Your task to perform on an android device: find snoozed emails in the gmail app Image 0: 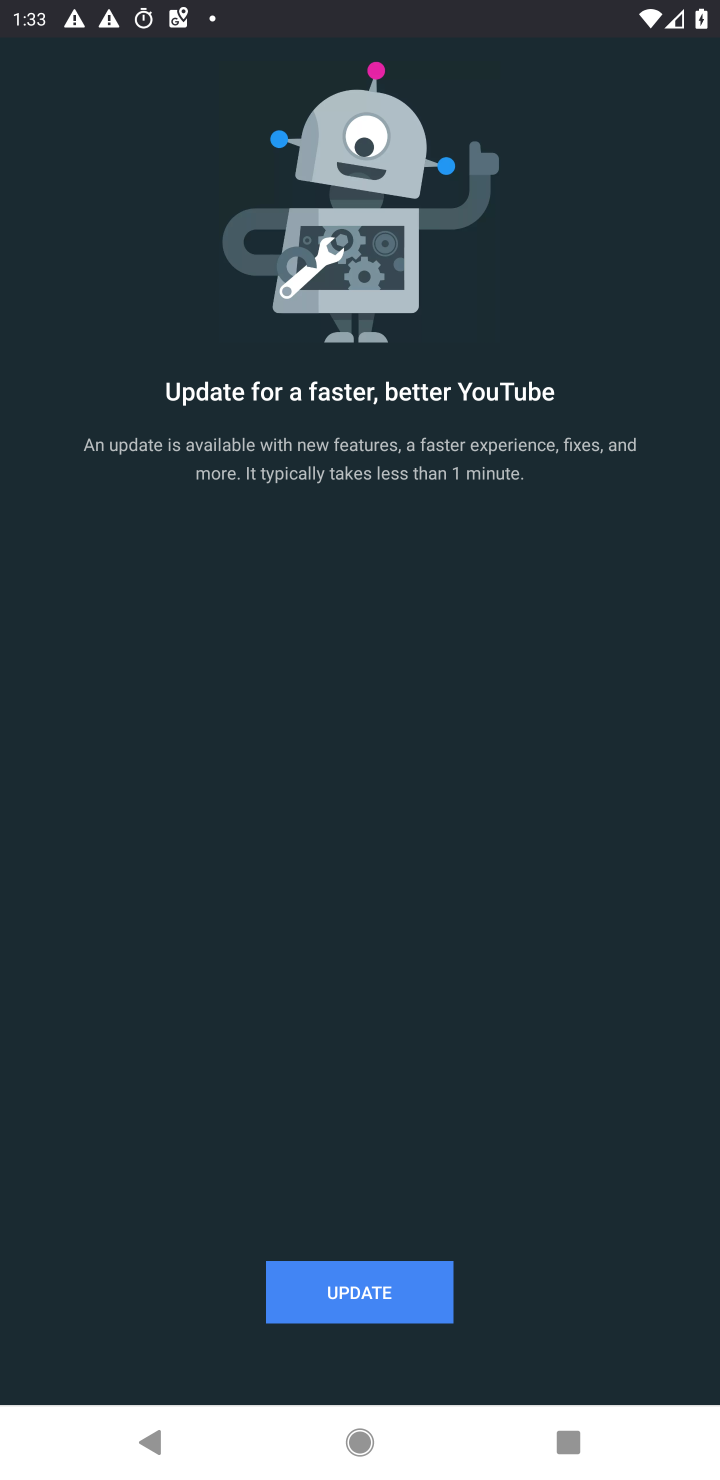
Step 0: press home button
Your task to perform on an android device: find snoozed emails in the gmail app Image 1: 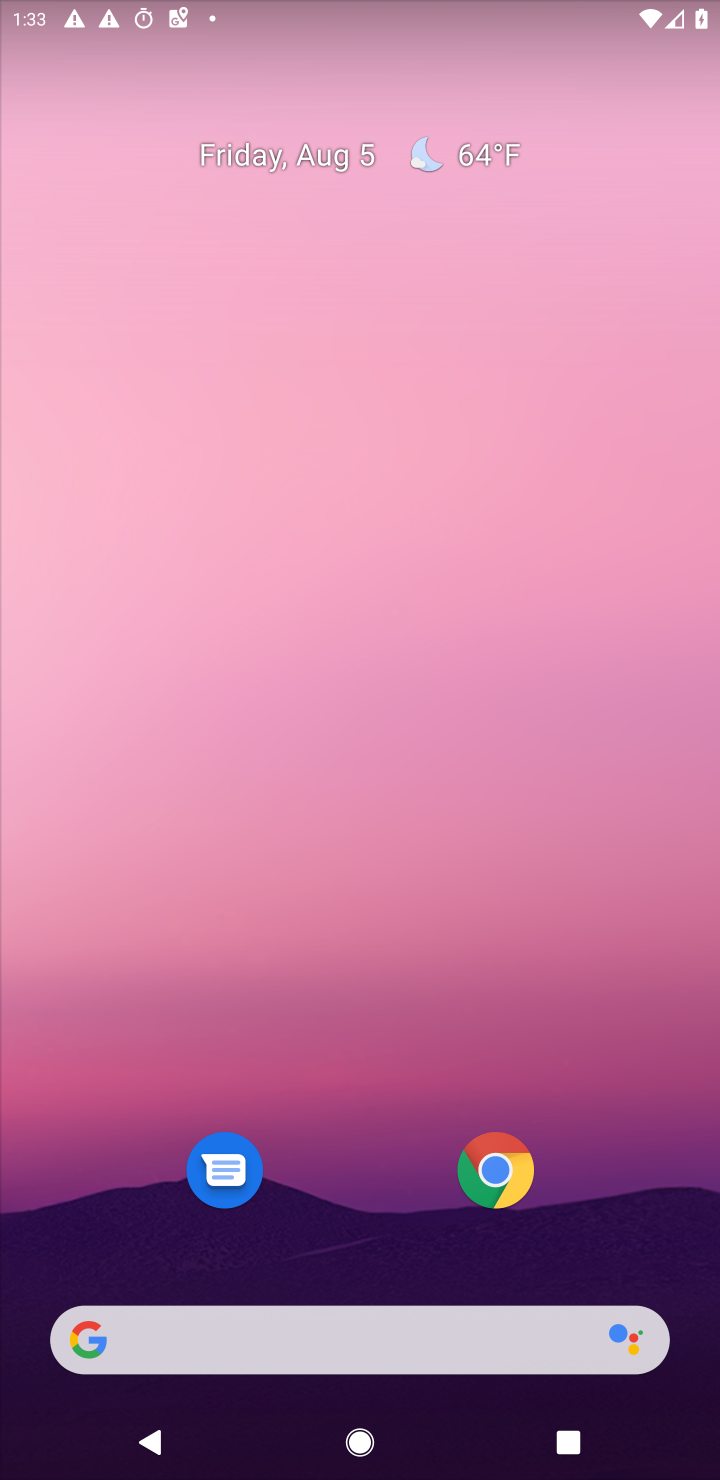
Step 1: drag from (430, 1219) to (380, 250)
Your task to perform on an android device: find snoozed emails in the gmail app Image 2: 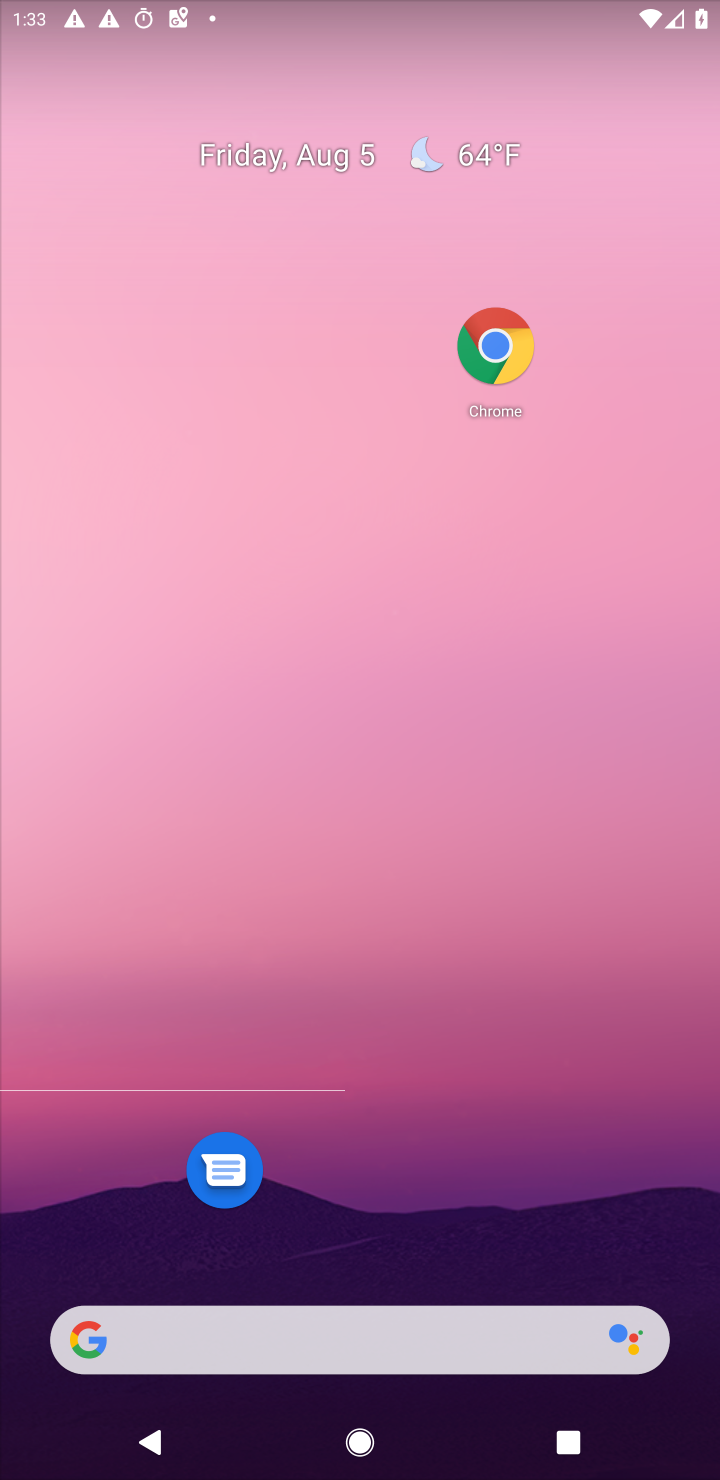
Step 2: click (378, 1112)
Your task to perform on an android device: find snoozed emails in the gmail app Image 3: 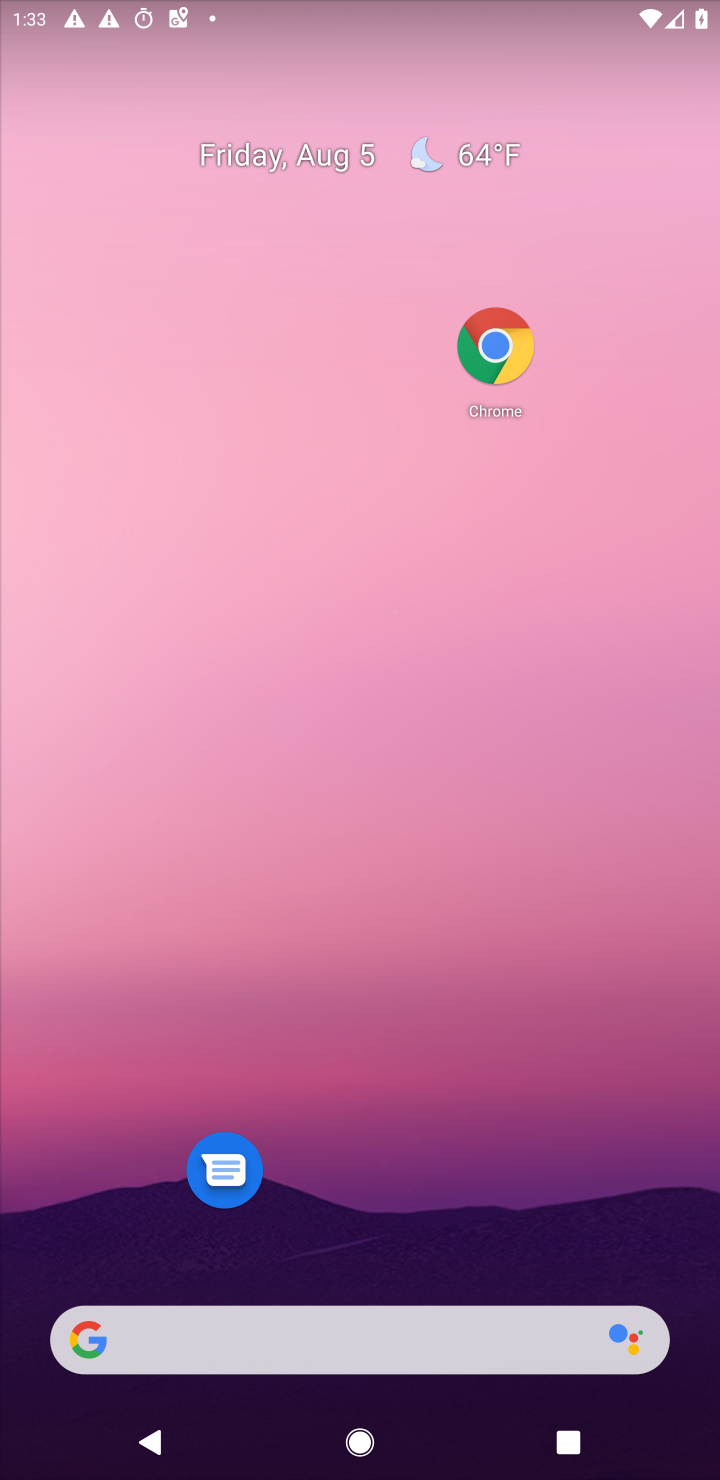
Step 3: drag from (355, 1198) to (213, 202)
Your task to perform on an android device: find snoozed emails in the gmail app Image 4: 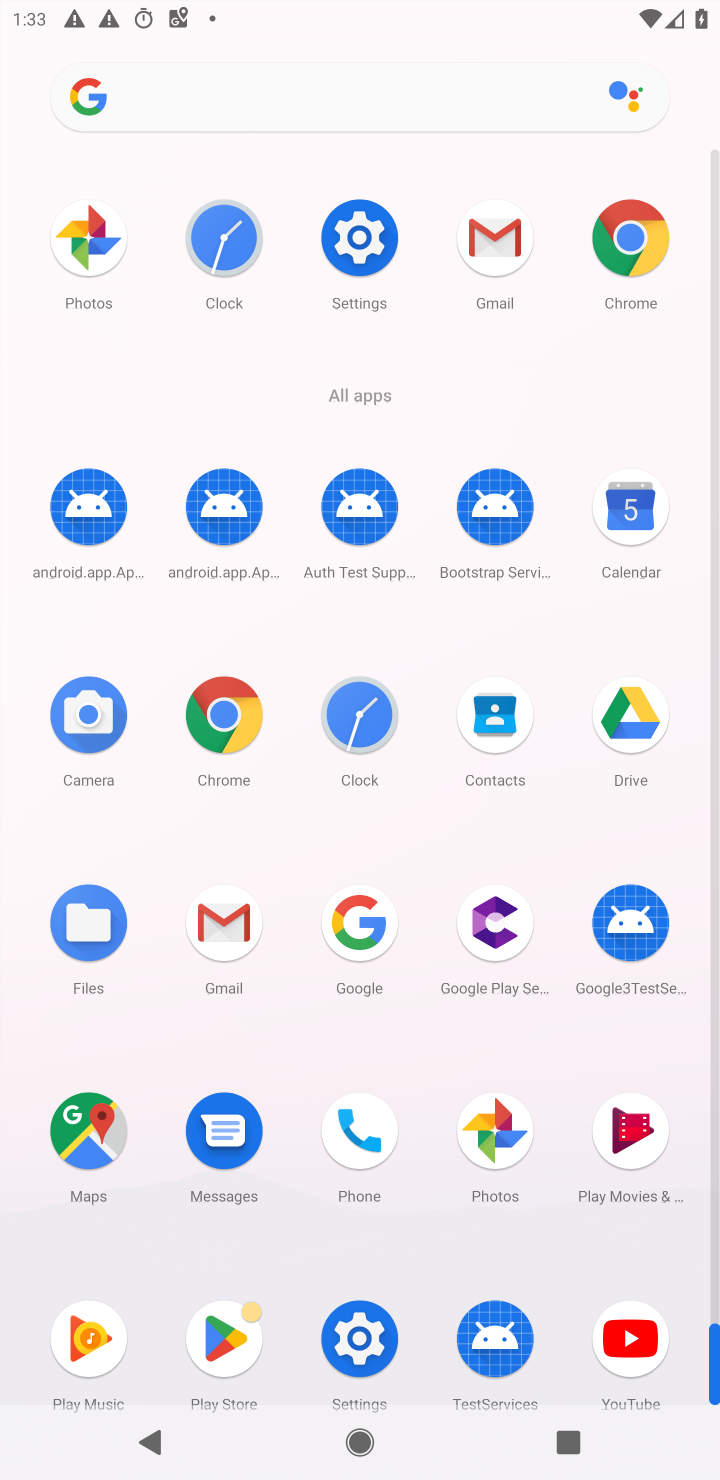
Step 4: click (230, 940)
Your task to perform on an android device: find snoozed emails in the gmail app Image 5: 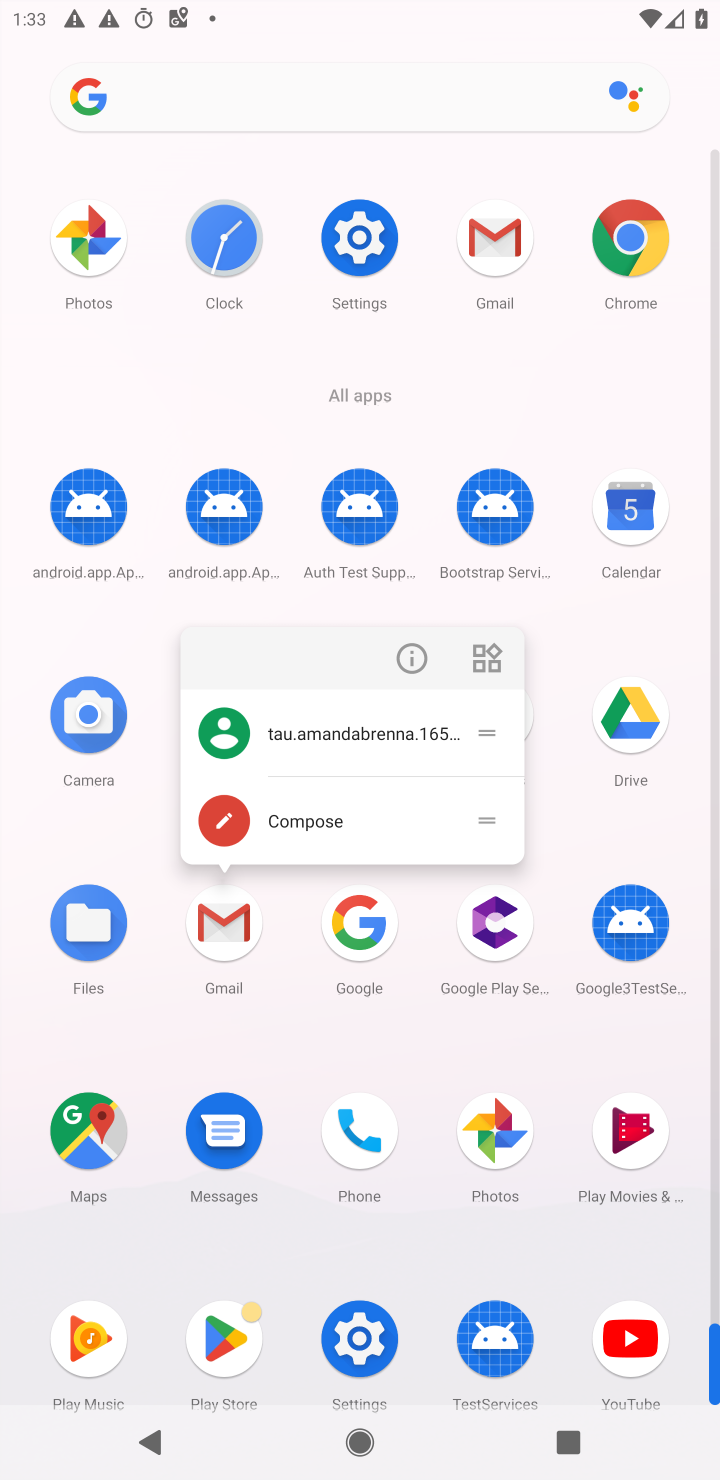
Step 5: click (231, 939)
Your task to perform on an android device: find snoozed emails in the gmail app Image 6: 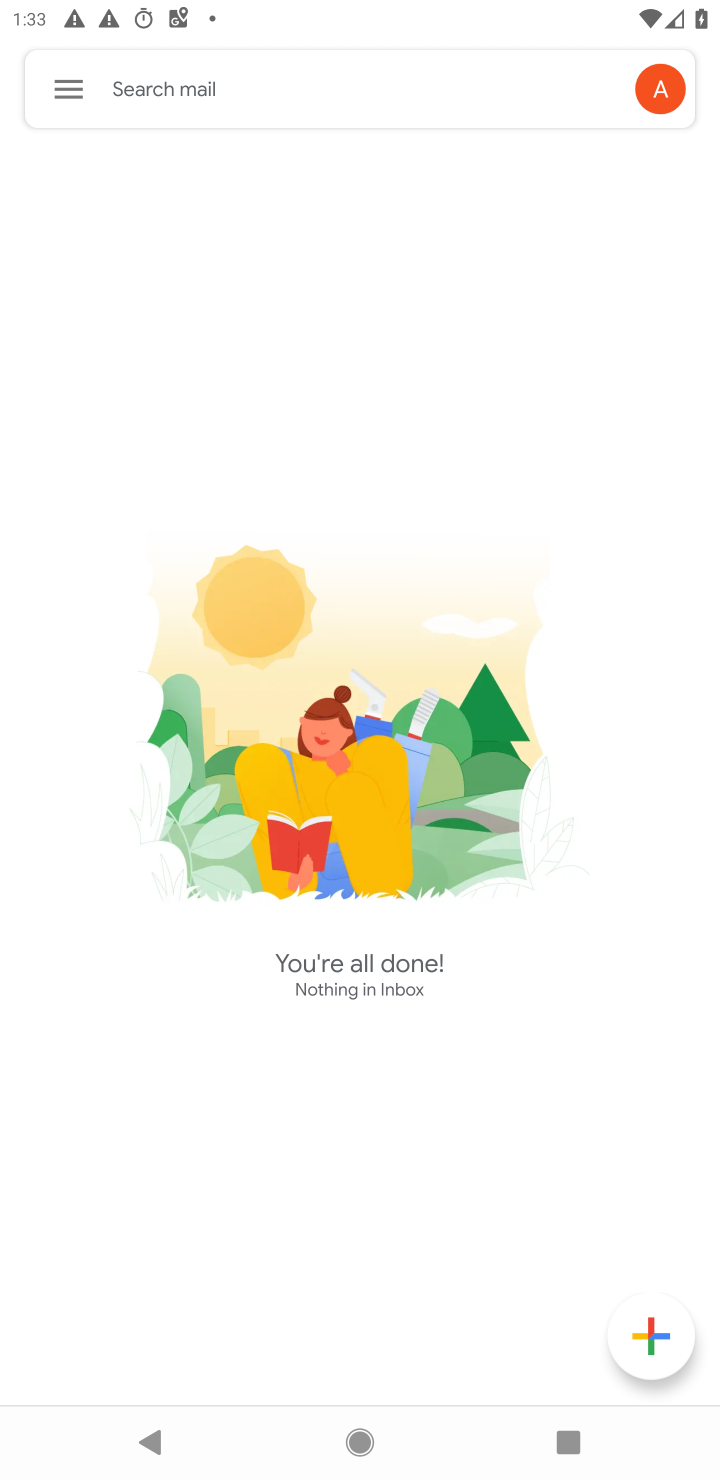
Step 6: click (68, 104)
Your task to perform on an android device: find snoozed emails in the gmail app Image 7: 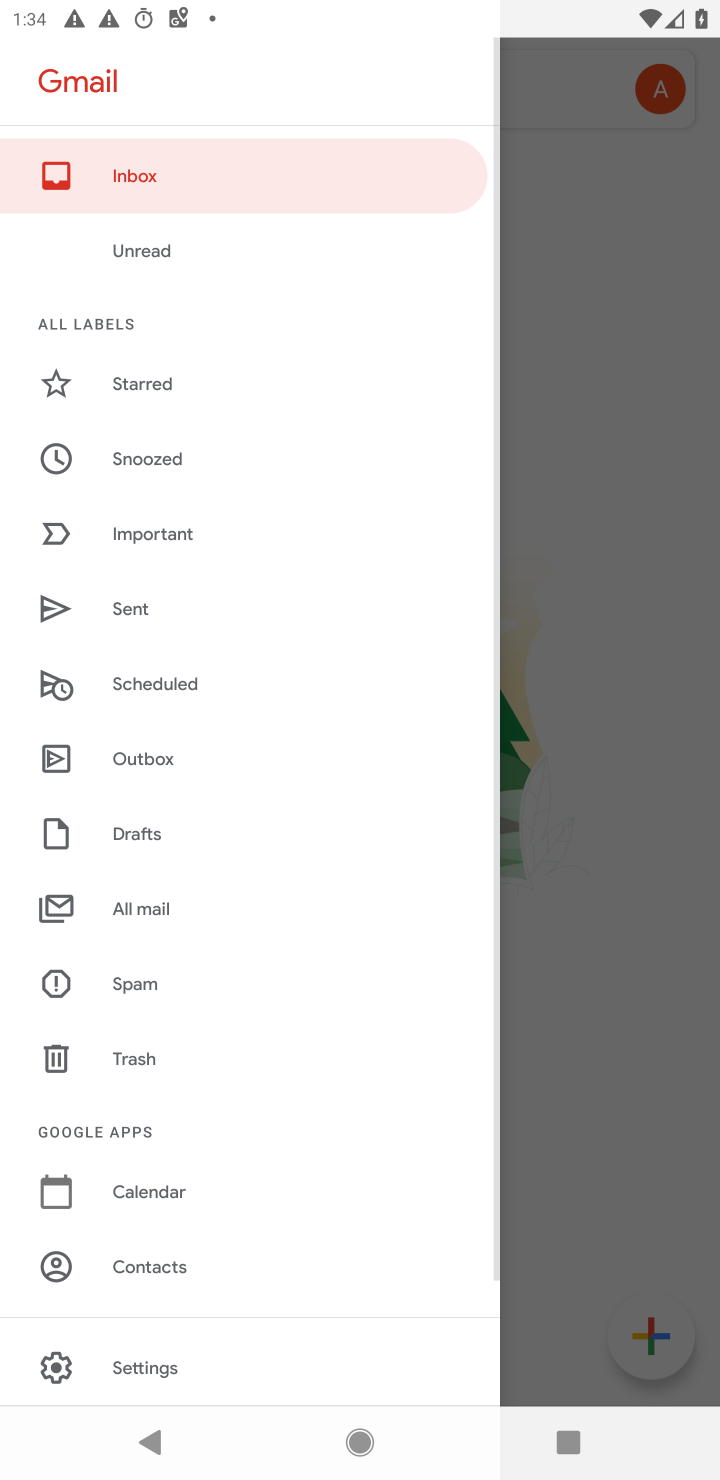
Step 7: click (181, 461)
Your task to perform on an android device: find snoozed emails in the gmail app Image 8: 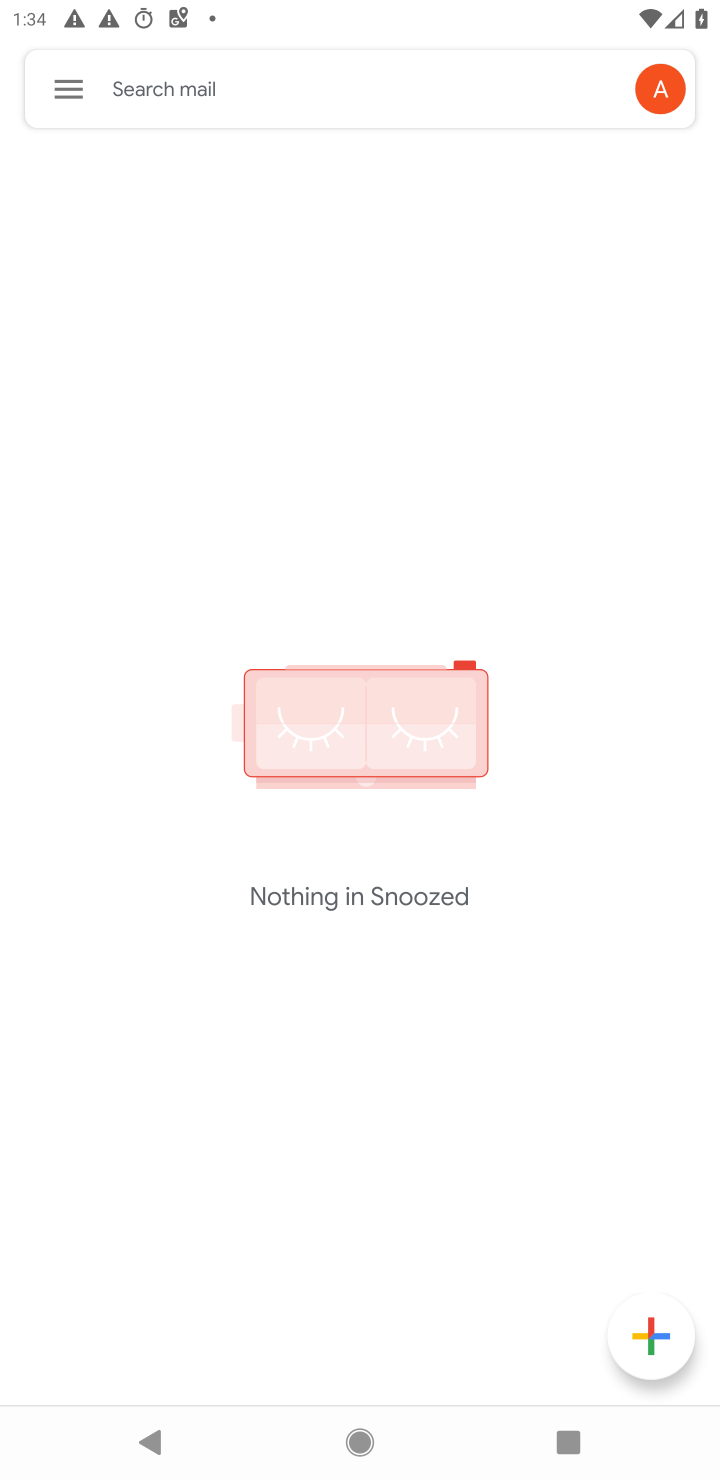
Step 8: task complete